Your task to perform on an android device: turn off translation in the chrome app Image 0: 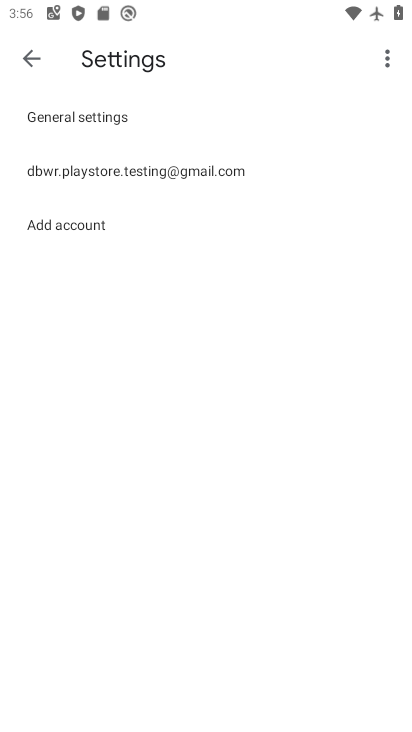
Step 0: press home button
Your task to perform on an android device: turn off translation in the chrome app Image 1: 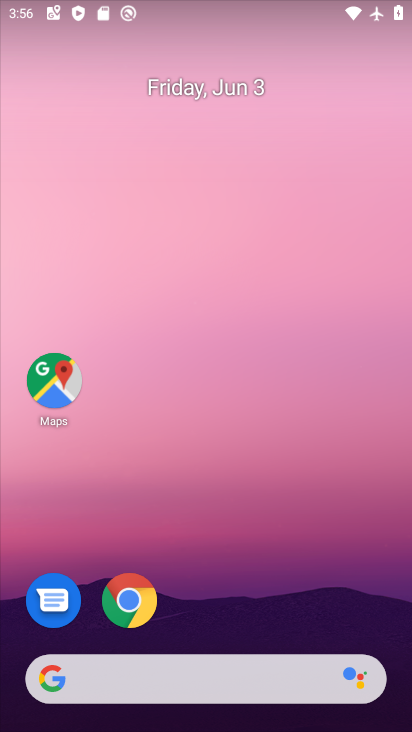
Step 1: click (138, 598)
Your task to perform on an android device: turn off translation in the chrome app Image 2: 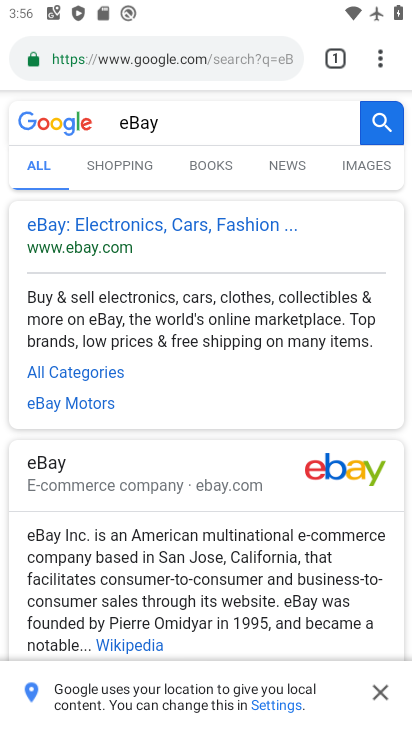
Step 2: click (383, 56)
Your task to perform on an android device: turn off translation in the chrome app Image 3: 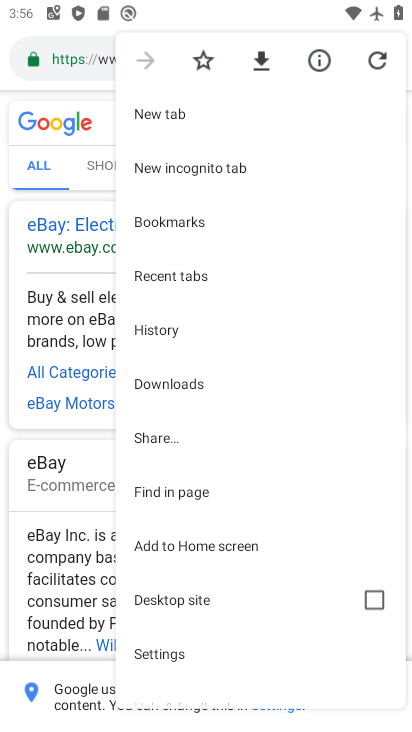
Step 3: click (172, 649)
Your task to perform on an android device: turn off translation in the chrome app Image 4: 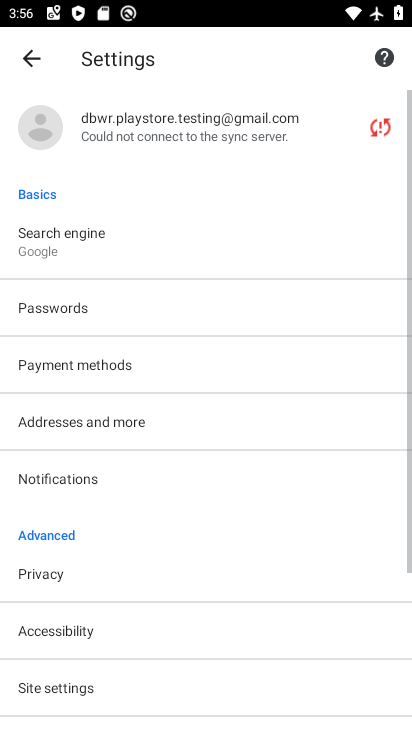
Step 4: drag from (131, 602) to (186, 157)
Your task to perform on an android device: turn off translation in the chrome app Image 5: 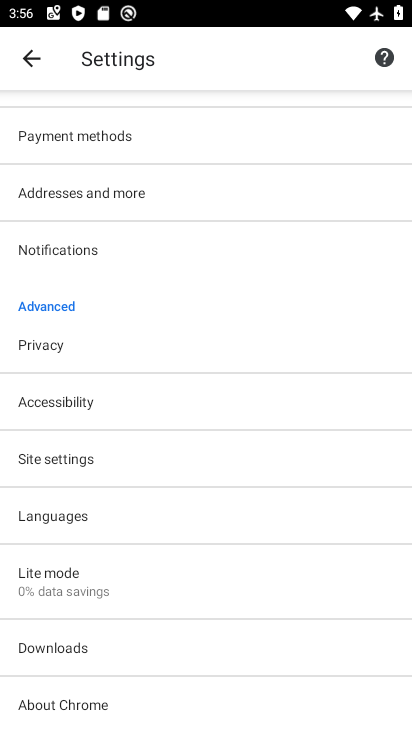
Step 5: click (106, 527)
Your task to perform on an android device: turn off translation in the chrome app Image 6: 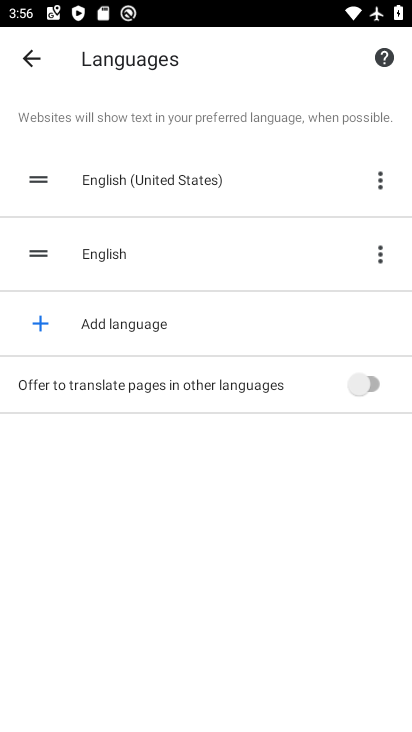
Step 6: task complete